Your task to perform on an android device: turn on showing notifications on the lock screen Image 0: 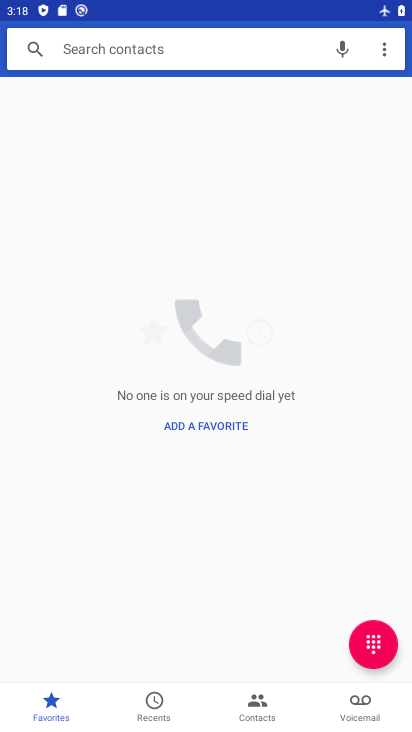
Step 0: press back button
Your task to perform on an android device: turn on showing notifications on the lock screen Image 1: 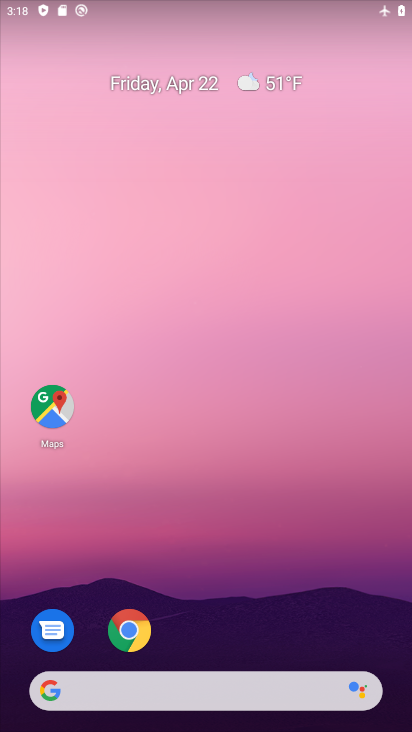
Step 1: drag from (301, 605) to (205, 23)
Your task to perform on an android device: turn on showing notifications on the lock screen Image 2: 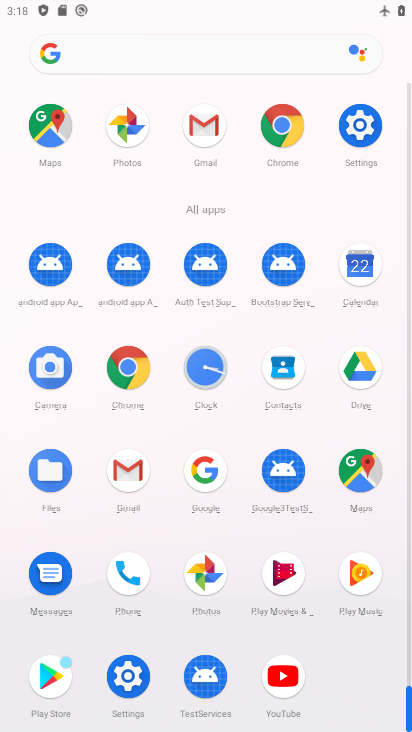
Step 2: drag from (9, 619) to (8, 297)
Your task to perform on an android device: turn on showing notifications on the lock screen Image 3: 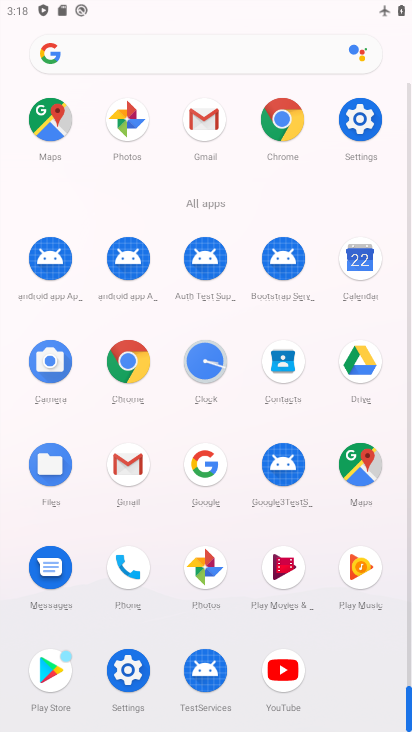
Step 3: click (125, 669)
Your task to perform on an android device: turn on showing notifications on the lock screen Image 4: 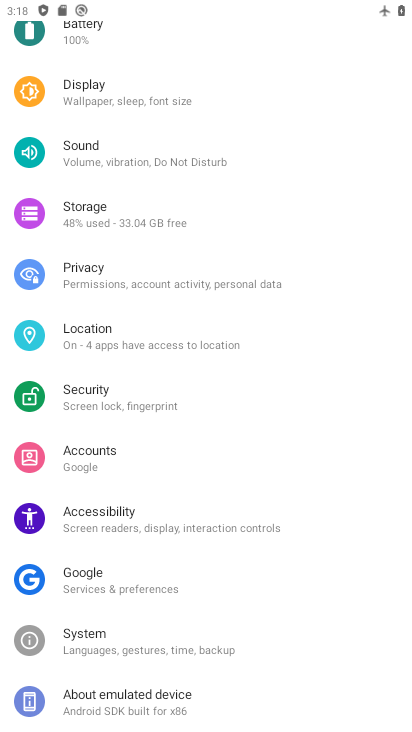
Step 4: drag from (222, 90) to (233, 517)
Your task to perform on an android device: turn on showing notifications on the lock screen Image 5: 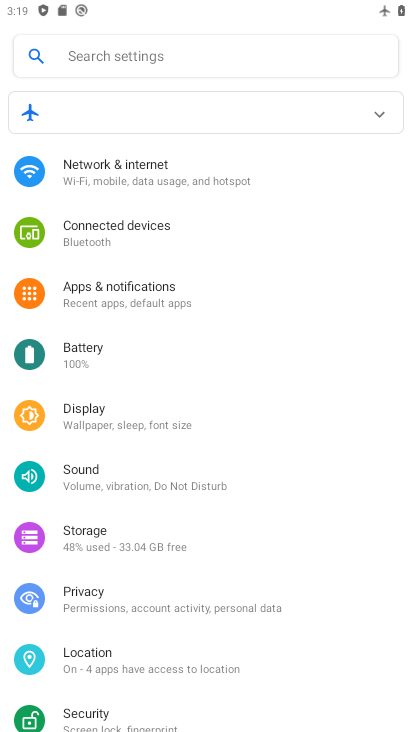
Step 5: drag from (285, 507) to (271, 165)
Your task to perform on an android device: turn on showing notifications on the lock screen Image 6: 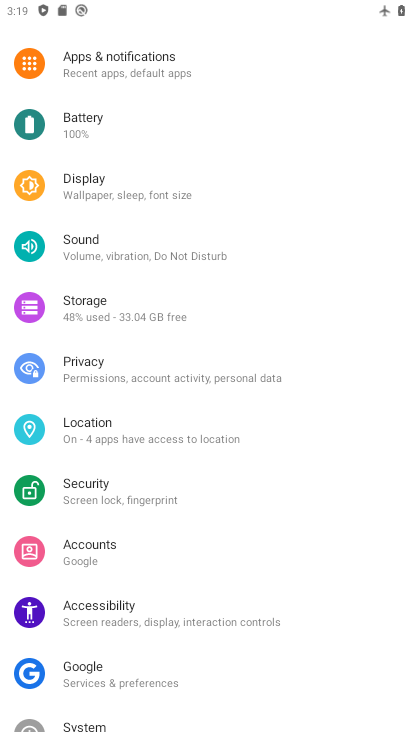
Step 6: click (159, 57)
Your task to perform on an android device: turn on showing notifications on the lock screen Image 7: 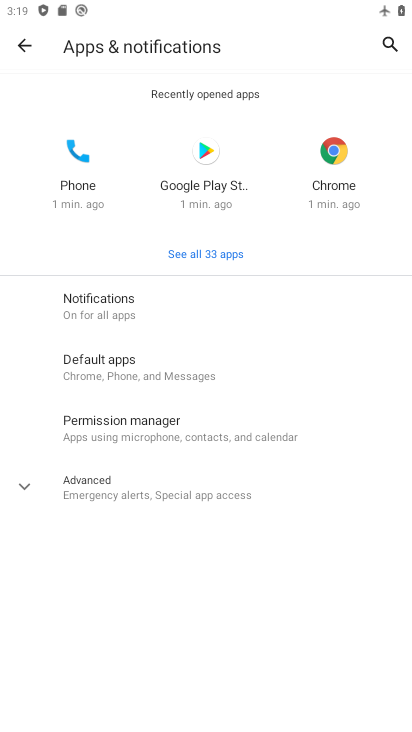
Step 7: click (29, 489)
Your task to perform on an android device: turn on showing notifications on the lock screen Image 8: 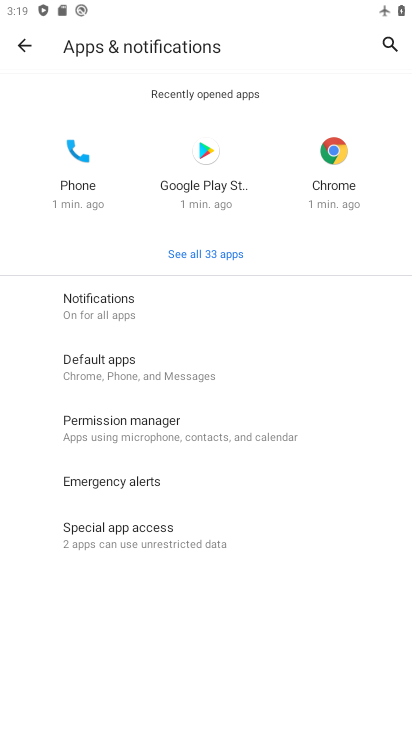
Step 8: click (141, 298)
Your task to perform on an android device: turn on showing notifications on the lock screen Image 9: 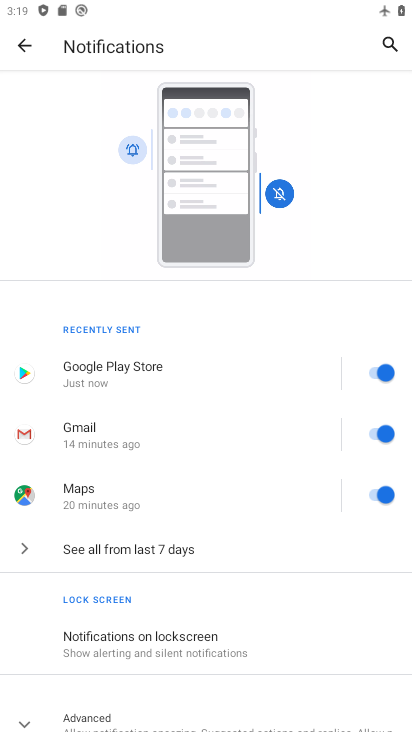
Step 9: click (201, 639)
Your task to perform on an android device: turn on showing notifications on the lock screen Image 10: 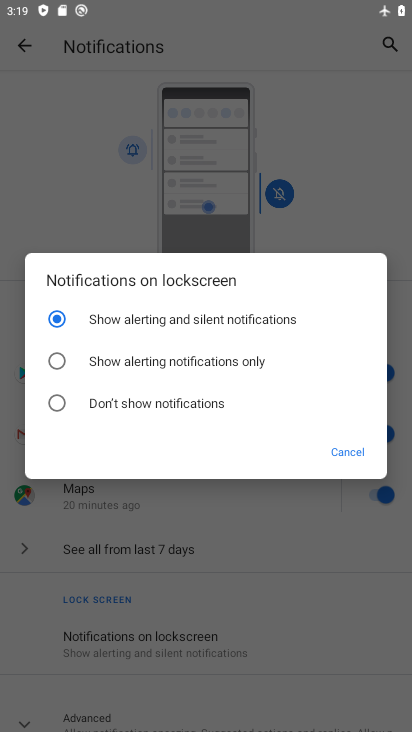
Step 10: click (109, 326)
Your task to perform on an android device: turn on showing notifications on the lock screen Image 11: 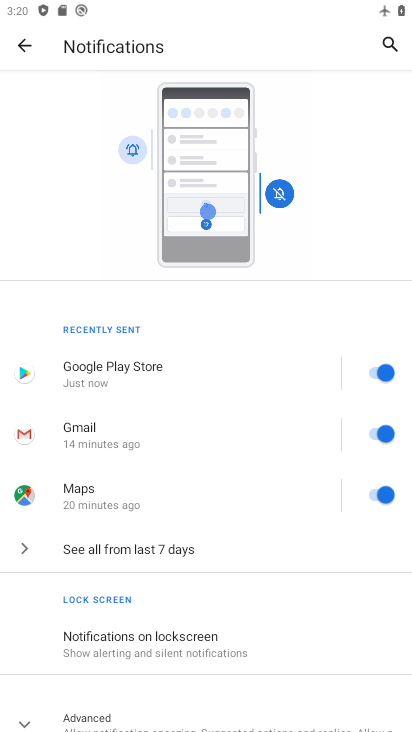
Step 11: task complete